Your task to perform on an android device: turn off data saver in the chrome app Image 0: 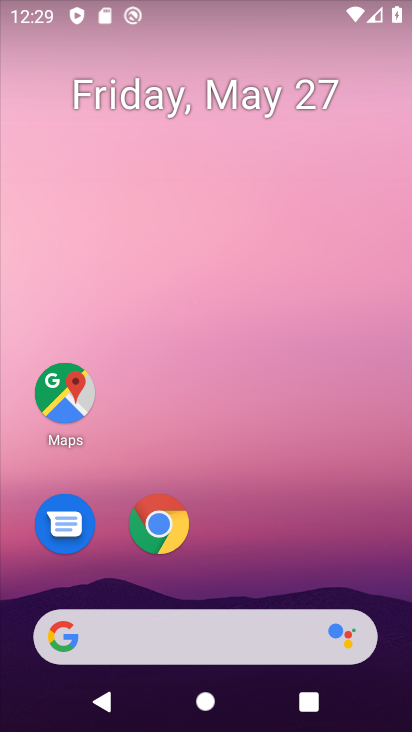
Step 0: click (168, 518)
Your task to perform on an android device: turn off data saver in the chrome app Image 1: 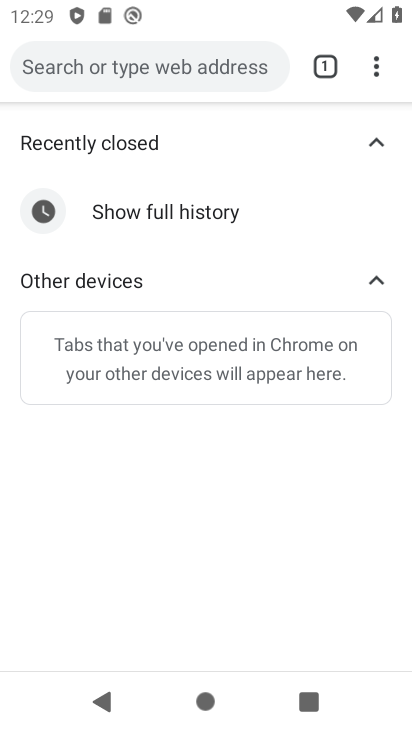
Step 1: click (375, 70)
Your task to perform on an android device: turn off data saver in the chrome app Image 2: 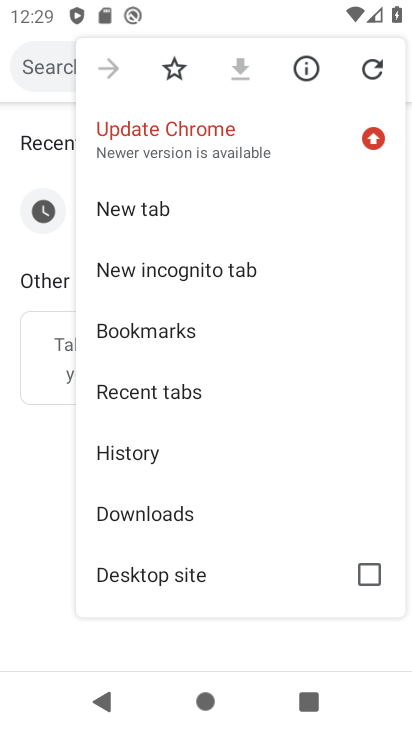
Step 2: drag from (277, 479) to (279, 160)
Your task to perform on an android device: turn off data saver in the chrome app Image 3: 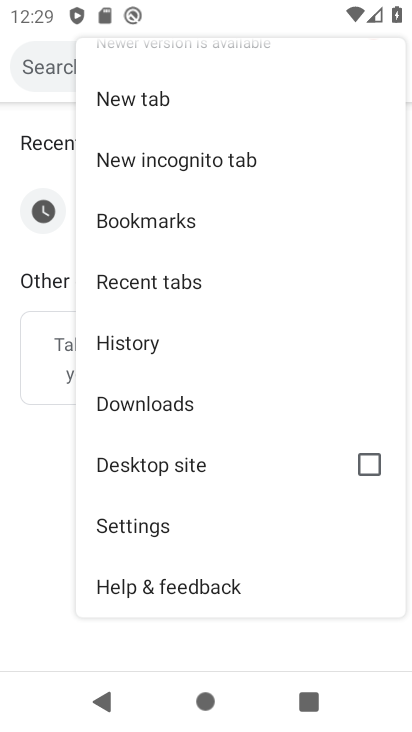
Step 3: click (132, 519)
Your task to perform on an android device: turn off data saver in the chrome app Image 4: 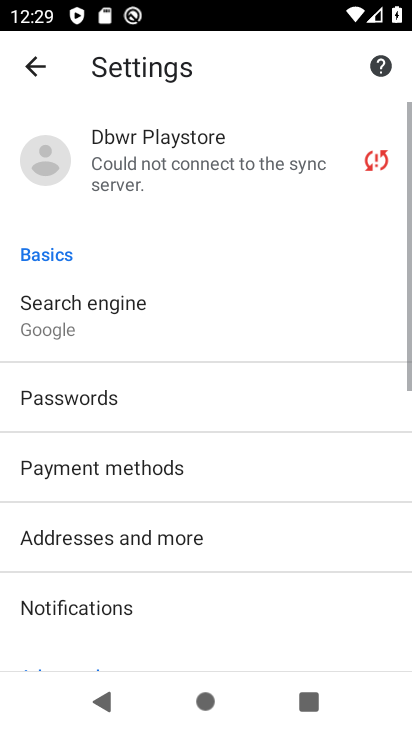
Step 4: drag from (232, 614) to (241, 258)
Your task to perform on an android device: turn off data saver in the chrome app Image 5: 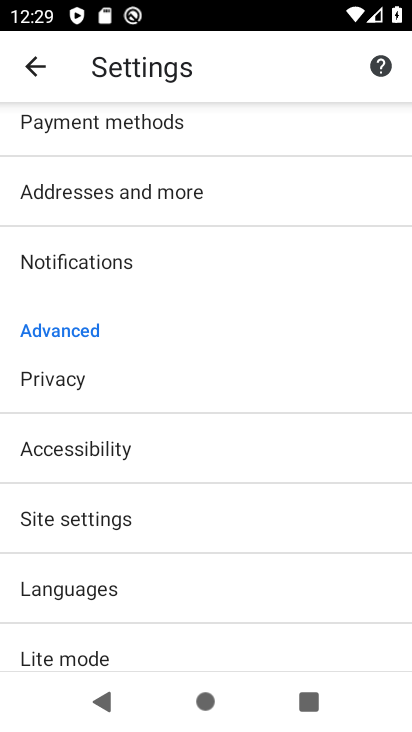
Step 5: drag from (235, 543) to (256, 321)
Your task to perform on an android device: turn off data saver in the chrome app Image 6: 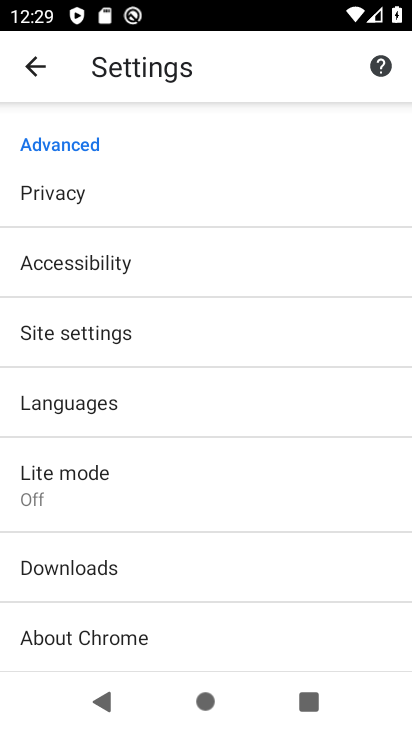
Step 6: click (184, 488)
Your task to perform on an android device: turn off data saver in the chrome app Image 7: 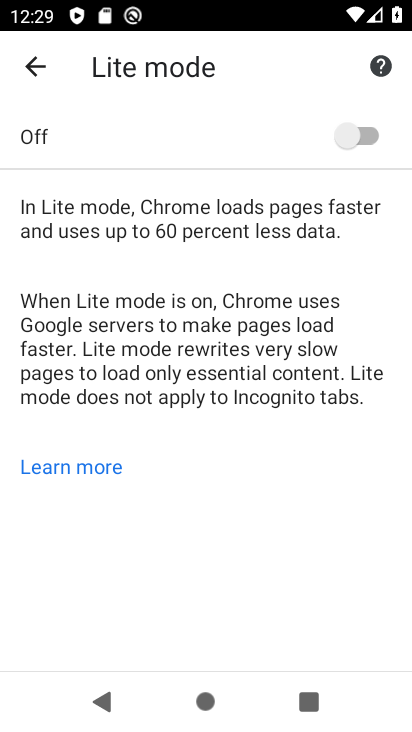
Step 7: task complete